Your task to perform on an android device: find photos in the google photos app Image 0: 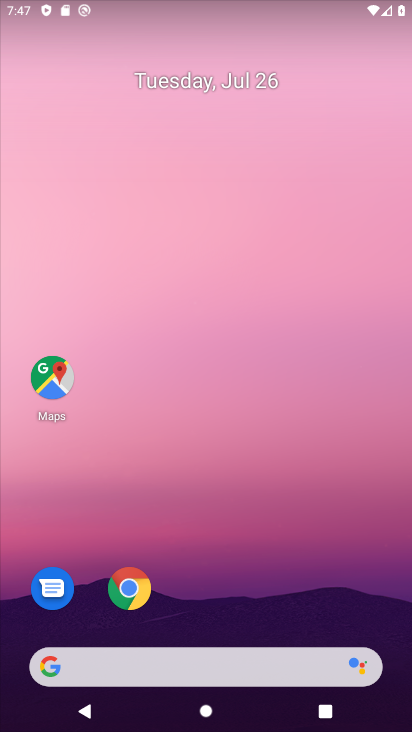
Step 0: drag from (278, 459) to (237, 50)
Your task to perform on an android device: find photos in the google photos app Image 1: 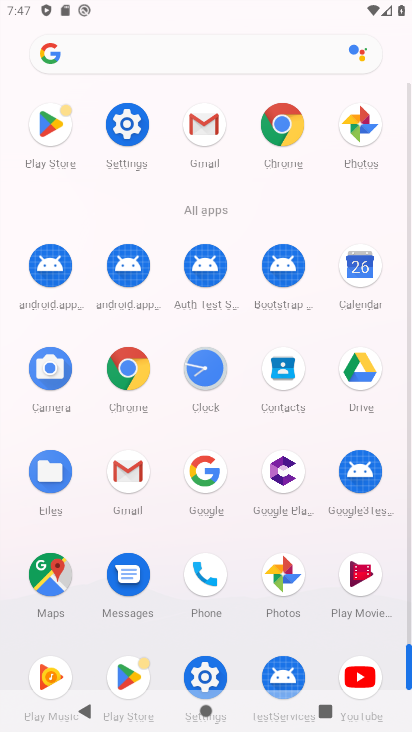
Step 1: click (297, 566)
Your task to perform on an android device: find photos in the google photos app Image 2: 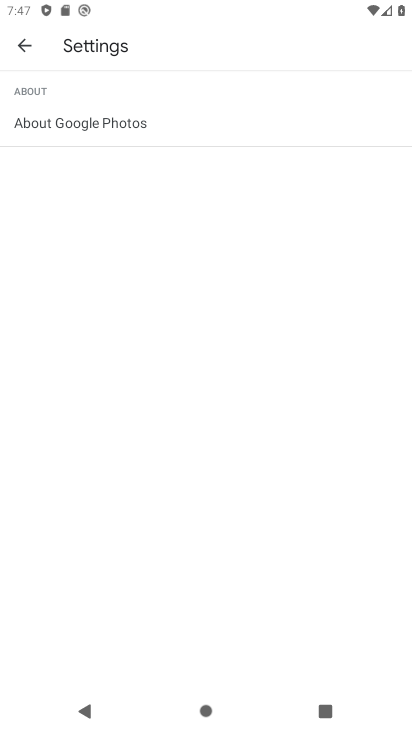
Step 2: click (18, 51)
Your task to perform on an android device: find photos in the google photos app Image 3: 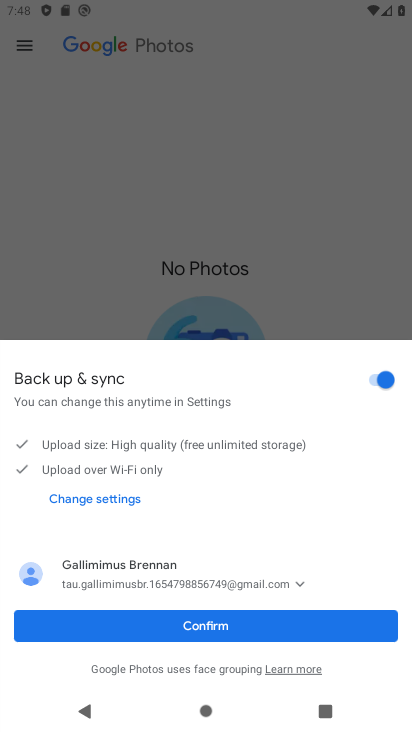
Step 3: click (228, 633)
Your task to perform on an android device: find photos in the google photos app Image 4: 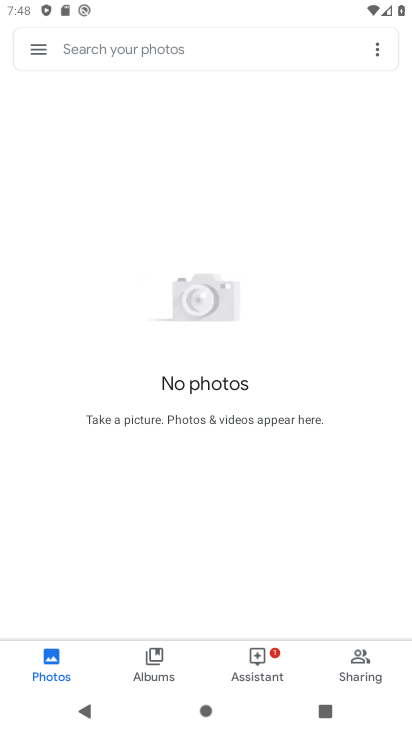
Step 4: task complete